Your task to perform on an android device: Search for "beats solo 3" on costco, select the first entry, and add it to the cart. Image 0: 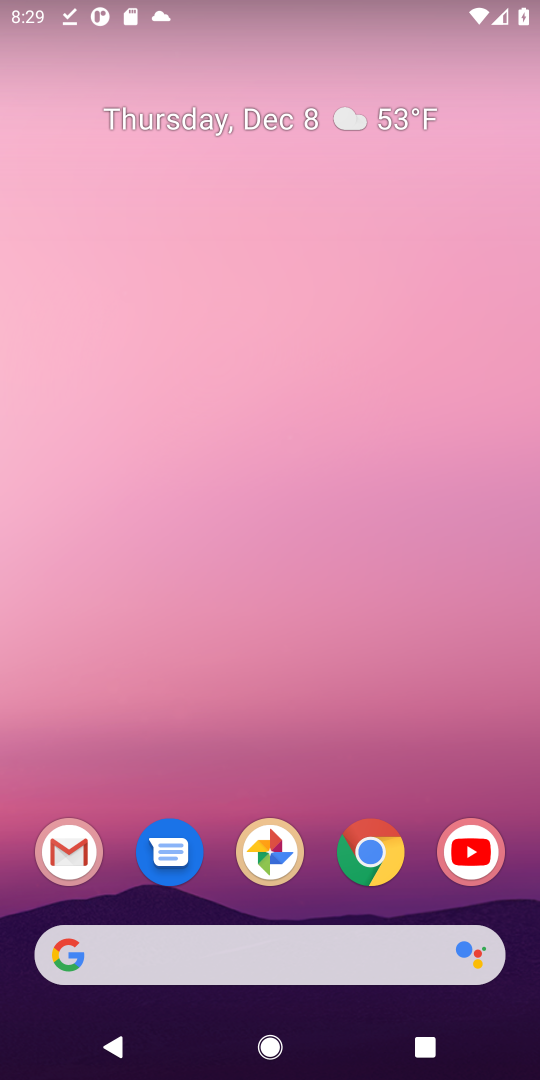
Step 0: click (222, 967)
Your task to perform on an android device: Search for "beats solo 3" on costco, select the first entry, and add it to the cart. Image 1: 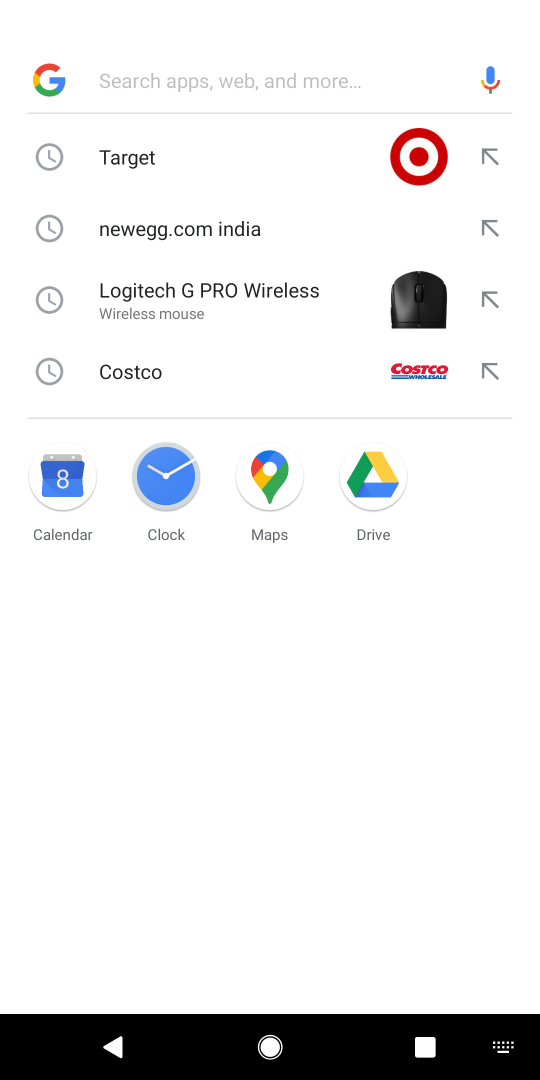
Step 1: type "costco.com"
Your task to perform on an android device: Search for "beats solo 3" on costco, select the first entry, and add it to the cart. Image 2: 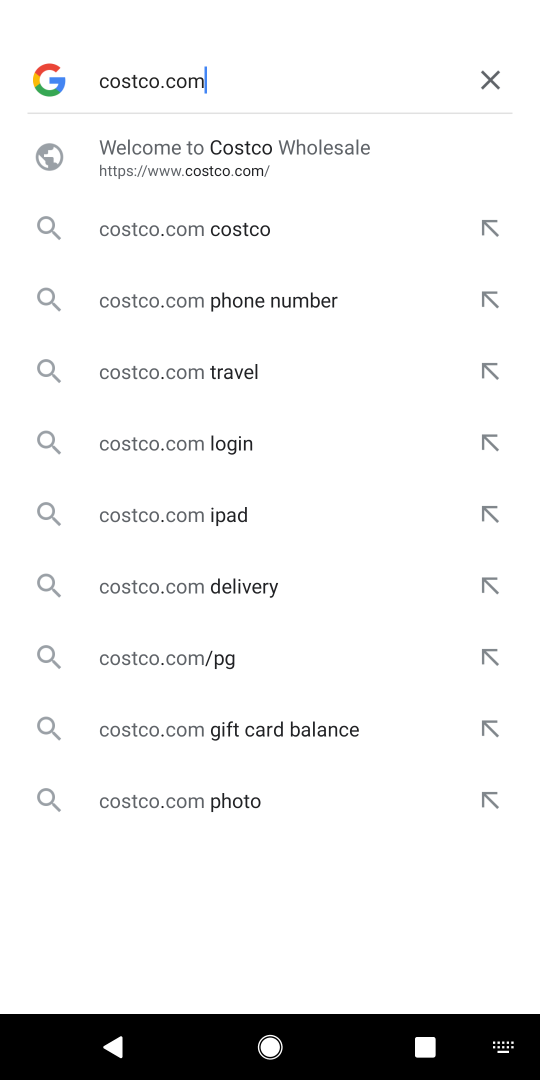
Step 2: click (125, 156)
Your task to perform on an android device: Search for "beats solo 3" on costco, select the first entry, and add it to the cart. Image 3: 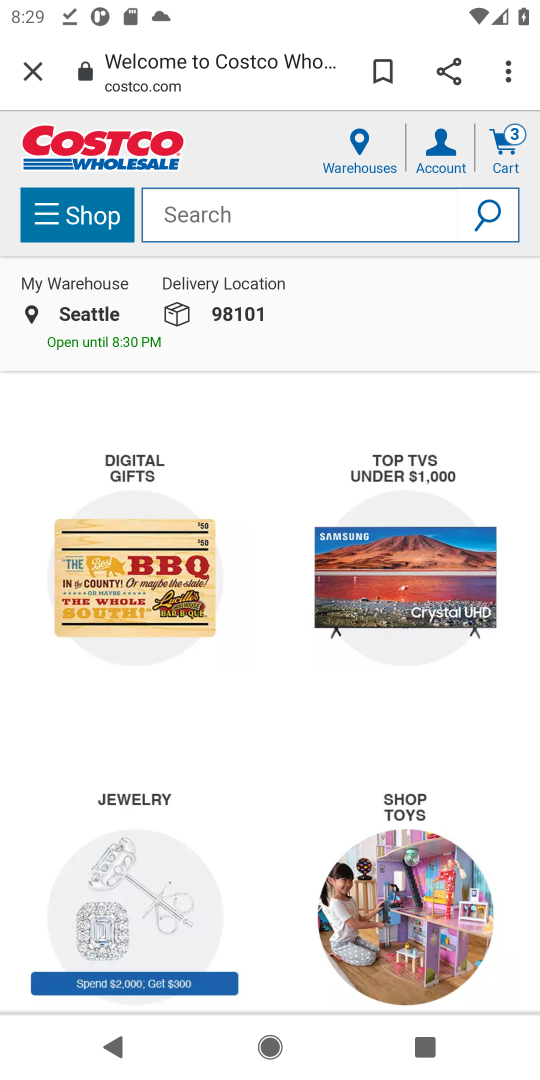
Step 3: click (262, 224)
Your task to perform on an android device: Search for "beats solo 3" on costco, select the first entry, and add it to the cart. Image 4: 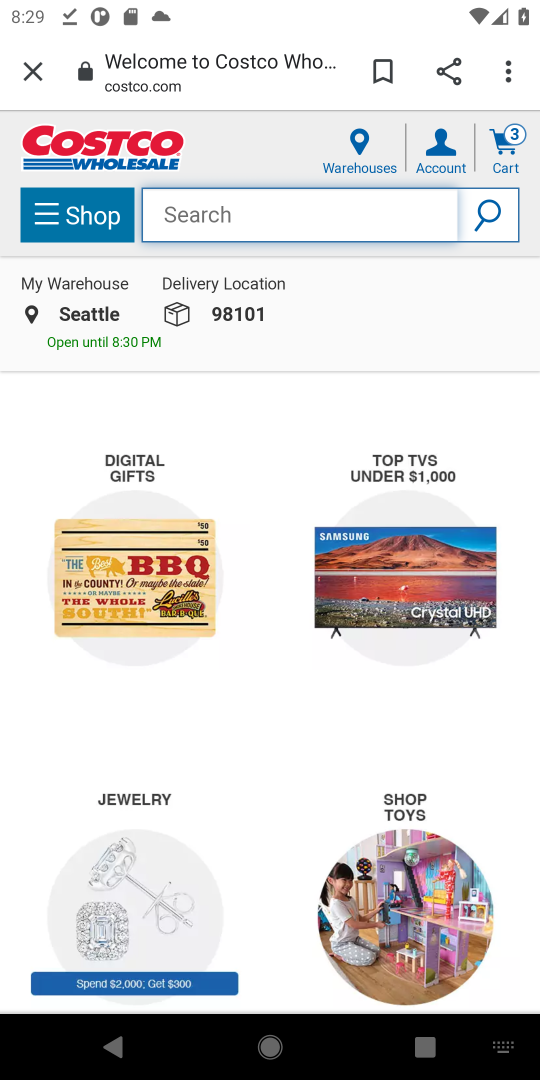
Step 4: type "beats solo 3"
Your task to perform on an android device: Search for "beats solo 3" on costco, select the first entry, and add it to the cart. Image 5: 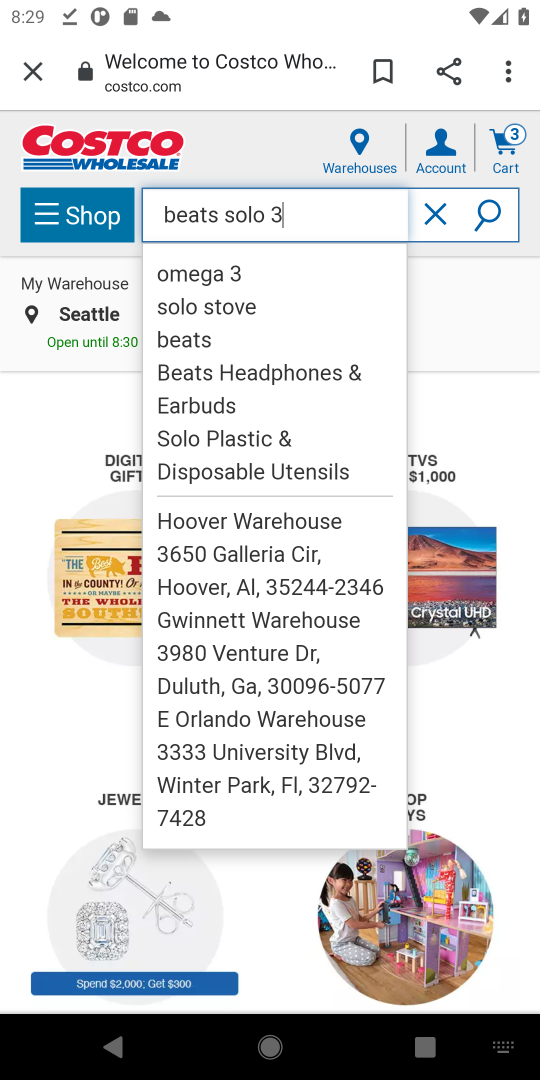
Step 5: click (491, 226)
Your task to perform on an android device: Search for "beats solo 3" on costco, select the first entry, and add it to the cart. Image 6: 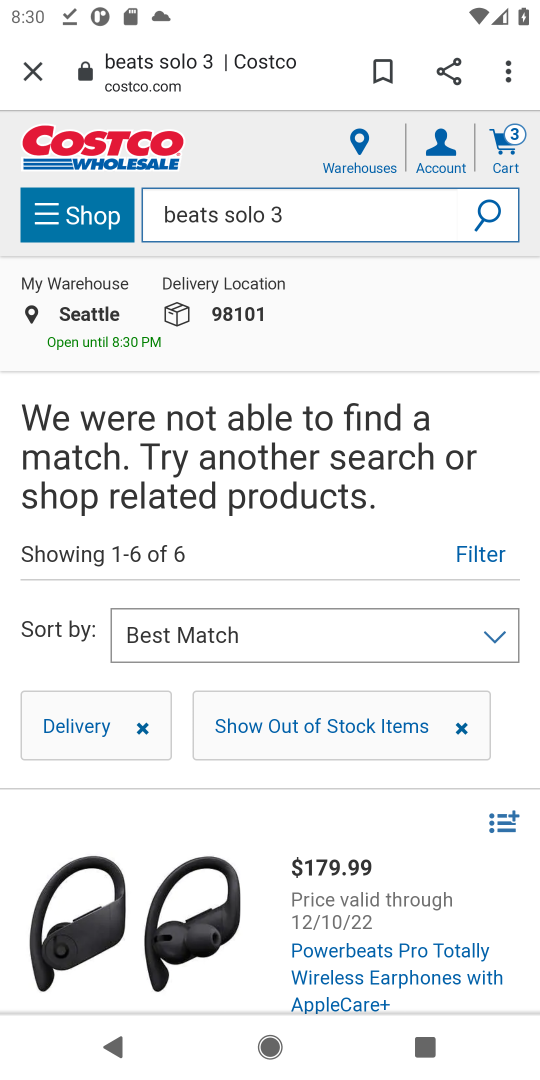
Step 6: drag from (247, 937) to (276, 214)
Your task to perform on an android device: Search for "beats solo 3" on costco, select the first entry, and add it to the cart. Image 7: 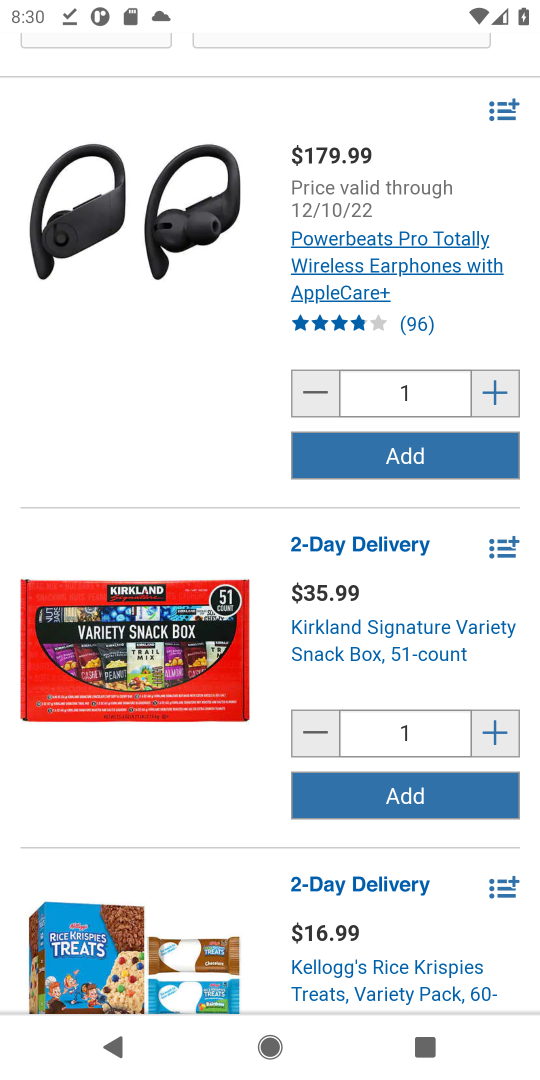
Step 7: click (342, 463)
Your task to perform on an android device: Search for "beats solo 3" on costco, select the first entry, and add it to the cart. Image 8: 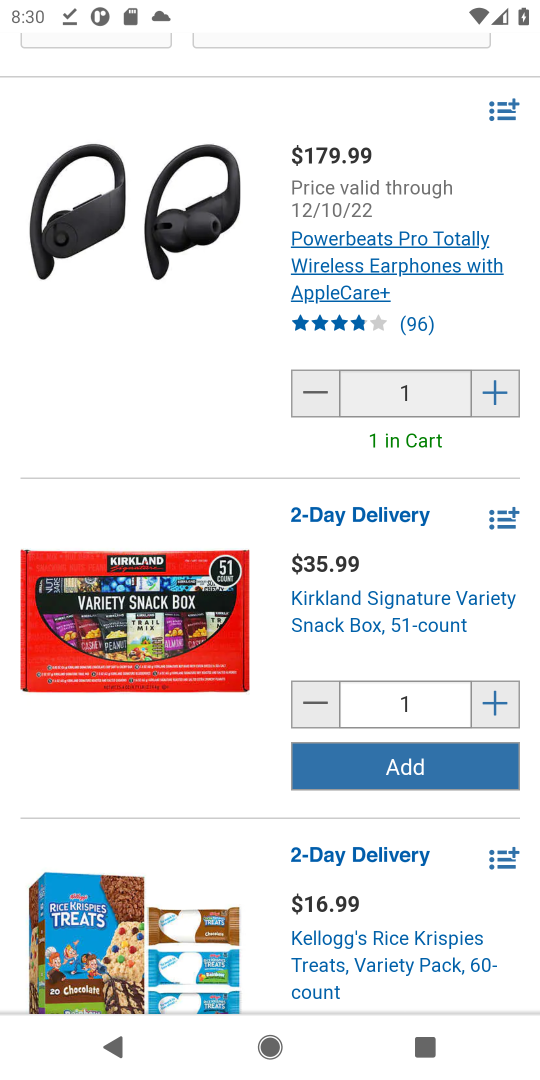
Step 8: task complete